Your task to perform on an android device: turn notification dots off Image 0: 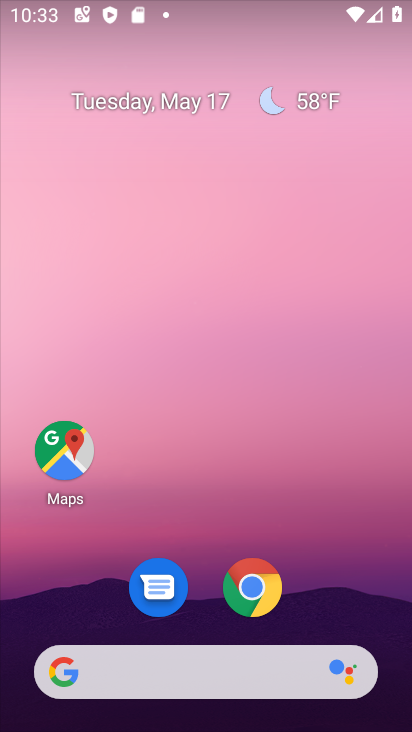
Step 0: drag from (334, 590) to (215, 130)
Your task to perform on an android device: turn notification dots off Image 1: 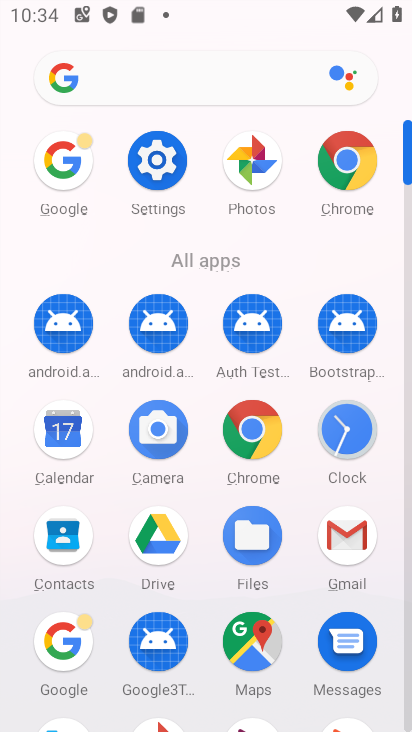
Step 1: click (158, 162)
Your task to perform on an android device: turn notification dots off Image 2: 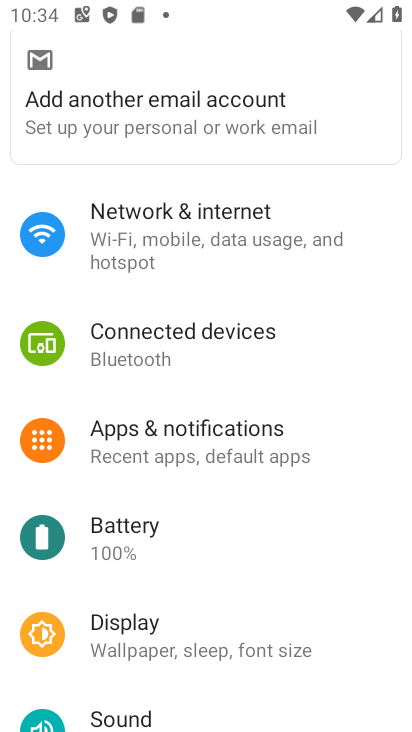
Step 2: click (172, 432)
Your task to perform on an android device: turn notification dots off Image 3: 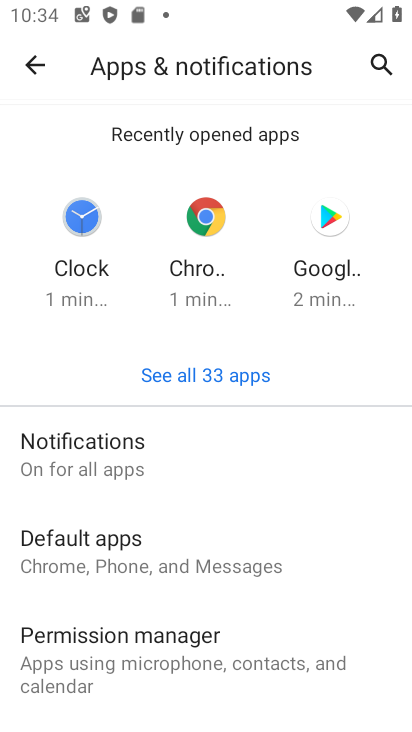
Step 3: click (109, 441)
Your task to perform on an android device: turn notification dots off Image 4: 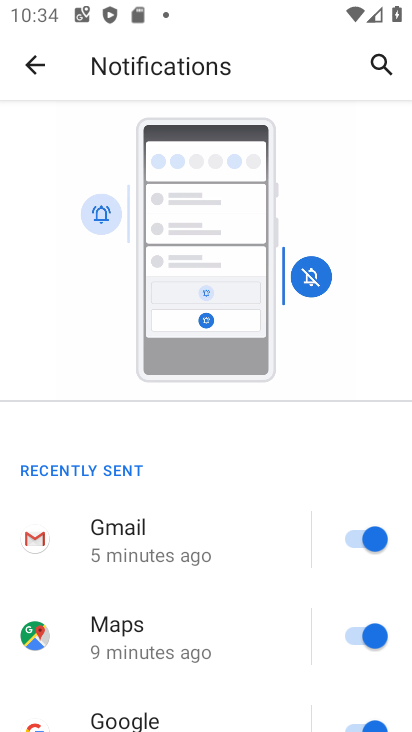
Step 4: drag from (172, 592) to (193, 448)
Your task to perform on an android device: turn notification dots off Image 5: 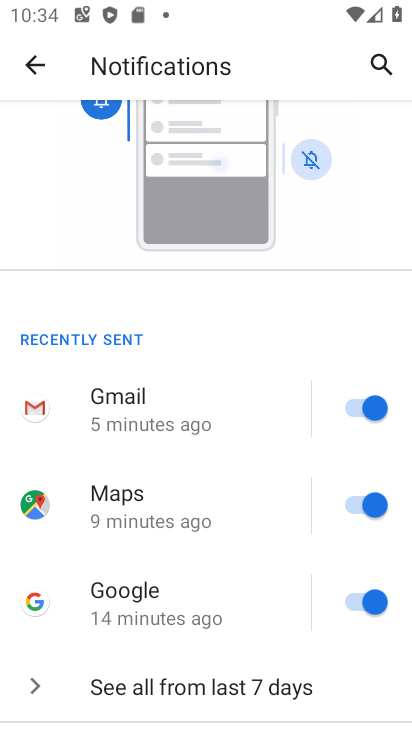
Step 5: drag from (130, 656) to (169, 457)
Your task to perform on an android device: turn notification dots off Image 6: 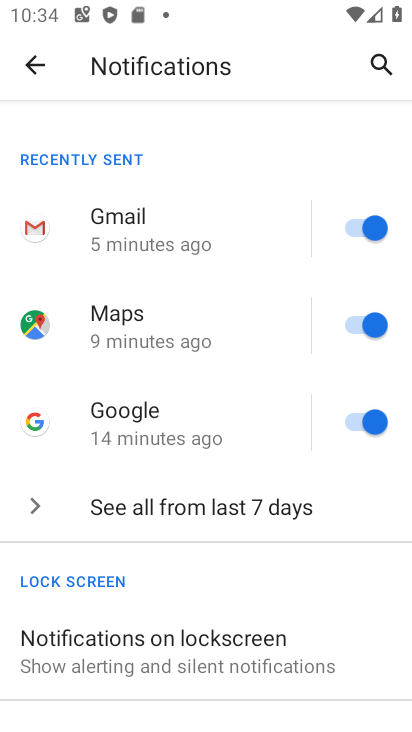
Step 6: drag from (139, 619) to (168, 503)
Your task to perform on an android device: turn notification dots off Image 7: 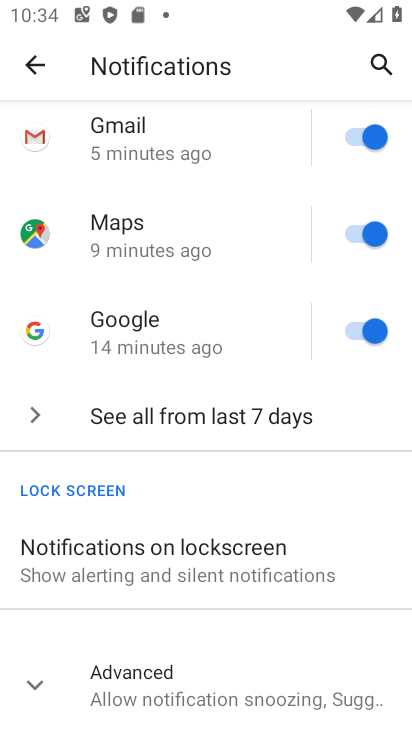
Step 7: click (137, 674)
Your task to perform on an android device: turn notification dots off Image 8: 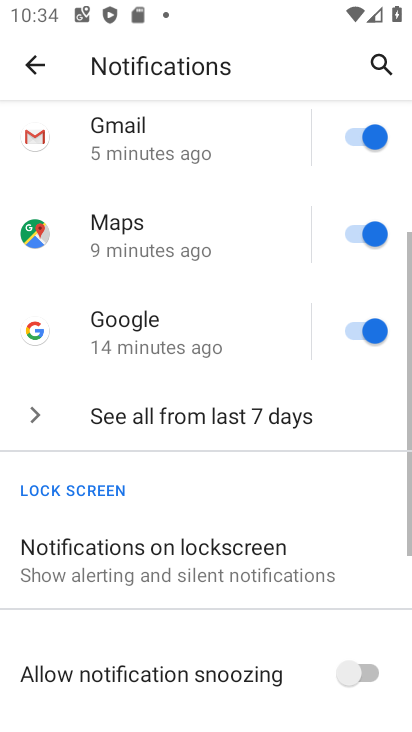
Step 8: drag from (177, 642) to (189, 514)
Your task to perform on an android device: turn notification dots off Image 9: 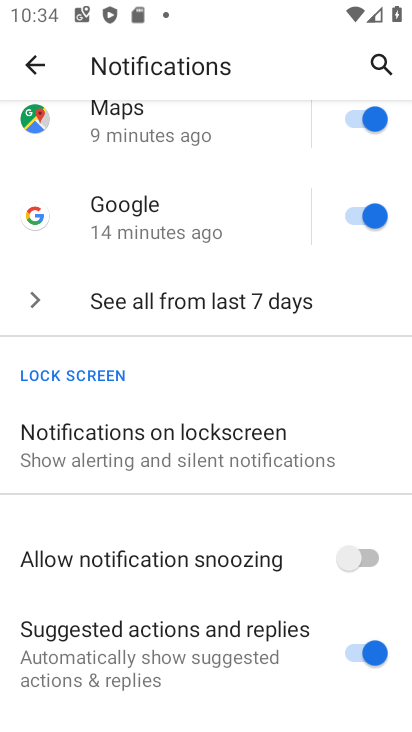
Step 9: drag from (161, 591) to (187, 487)
Your task to perform on an android device: turn notification dots off Image 10: 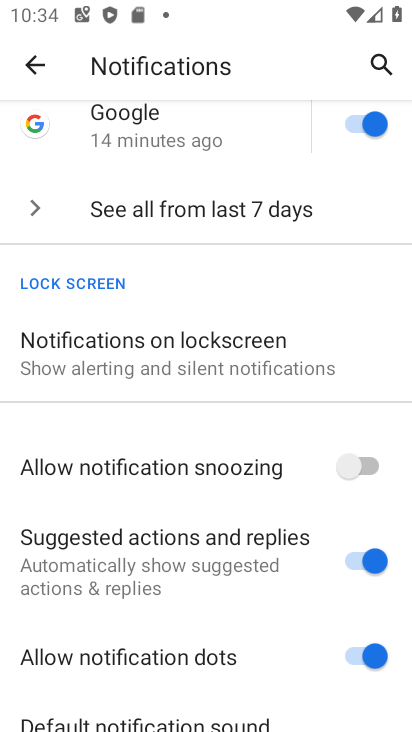
Step 10: drag from (174, 629) to (189, 543)
Your task to perform on an android device: turn notification dots off Image 11: 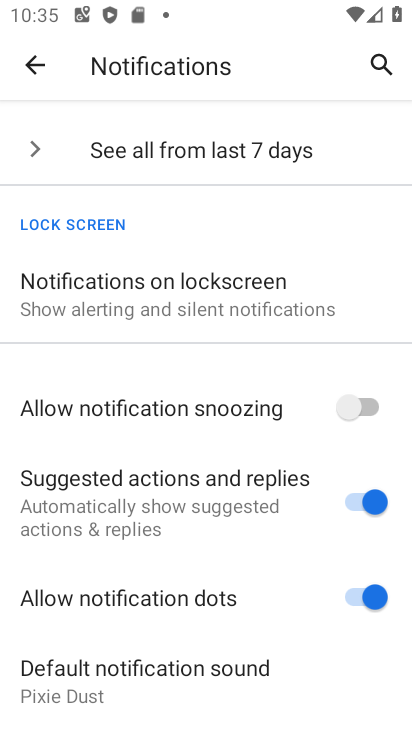
Step 11: click (377, 594)
Your task to perform on an android device: turn notification dots off Image 12: 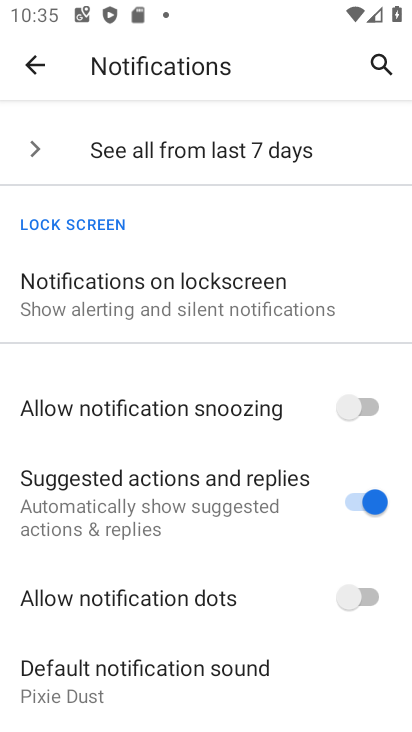
Step 12: task complete